Your task to perform on an android device: Look up the best rated pressure washer on Home Depot. Image 0: 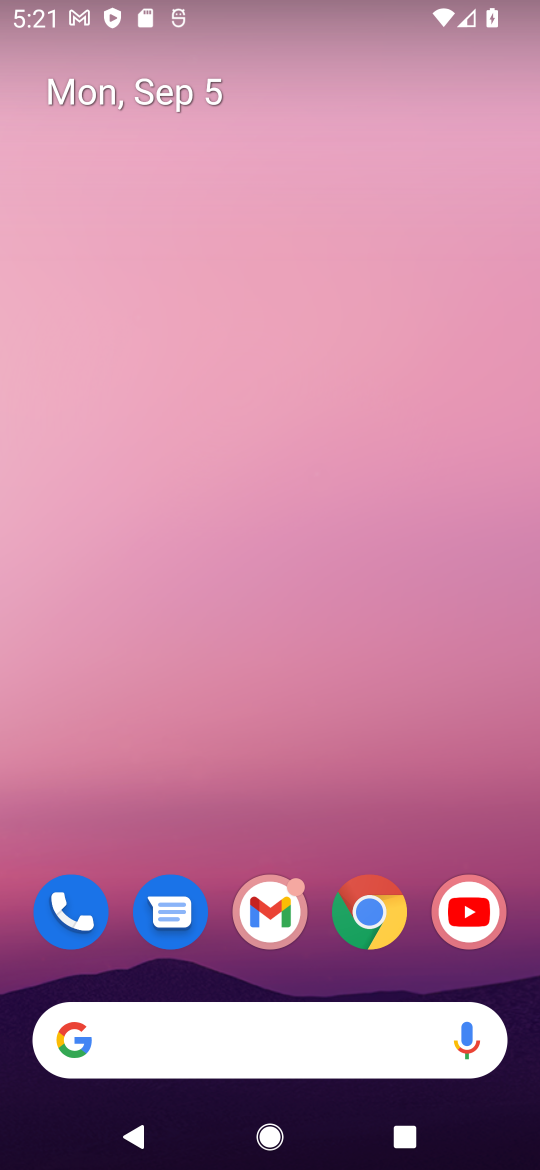
Step 0: click (384, 907)
Your task to perform on an android device: Look up the best rated pressure washer on Home Depot. Image 1: 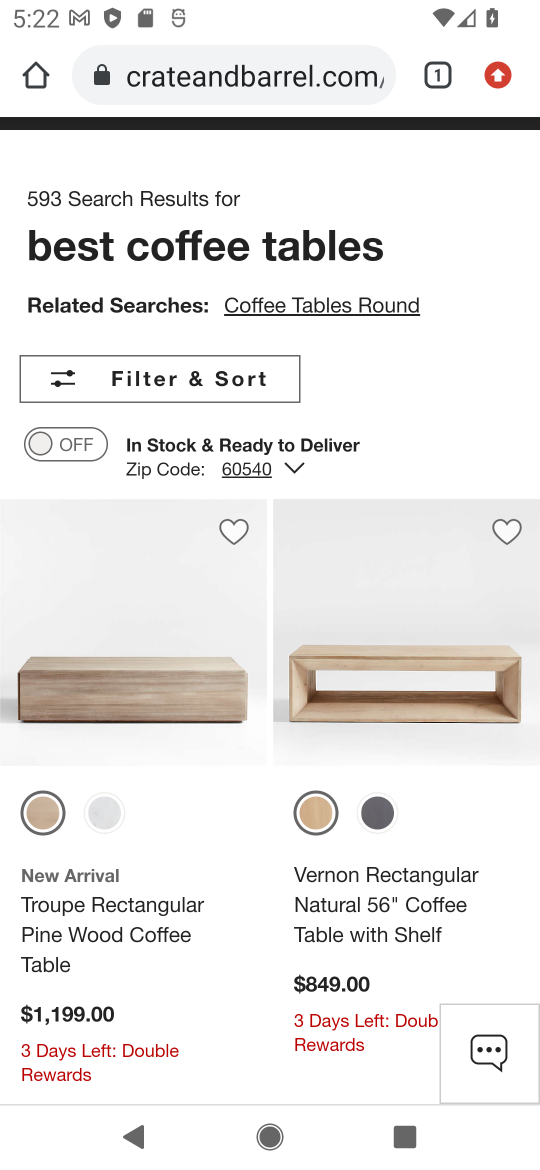
Step 1: click (279, 894)
Your task to perform on an android device: Look up the best rated pressure washer on Home Depot. Image 2: 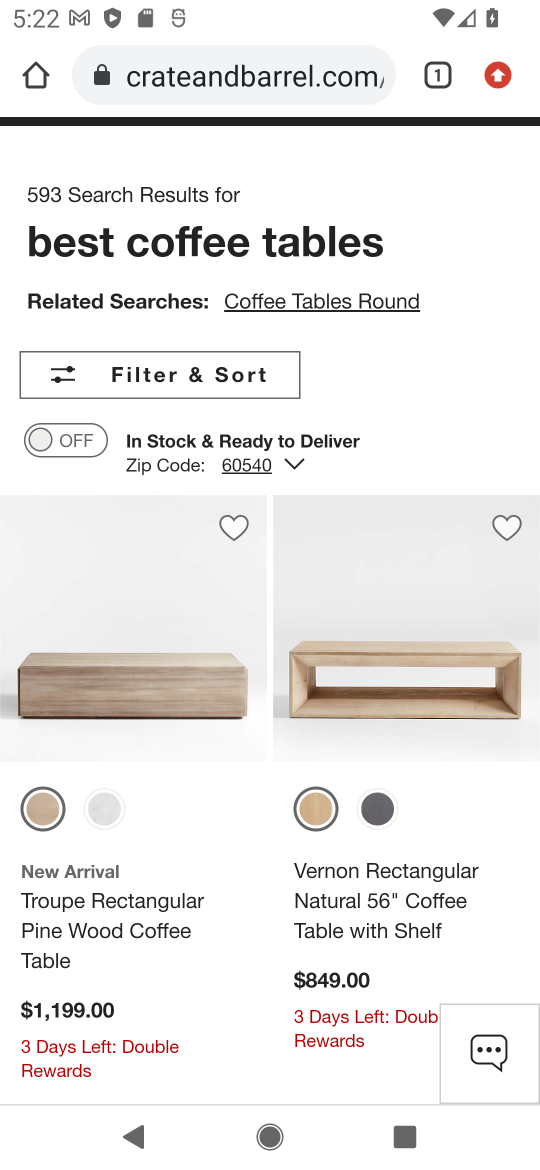
Step 2: click (303, 79)
Your task to perform on an android device: Look up the best rated pressure washer on Home Depot. Image 3: 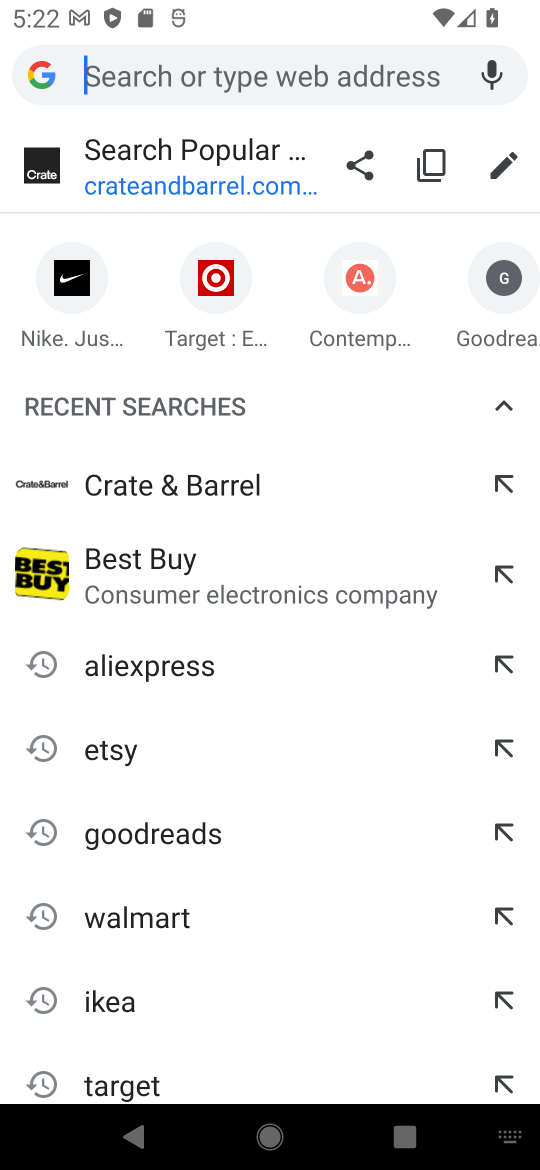
Step 3: type "home depot"
Your task to perform on an android device: Look up the best rated pressure washer on Home Depot. Image 4: 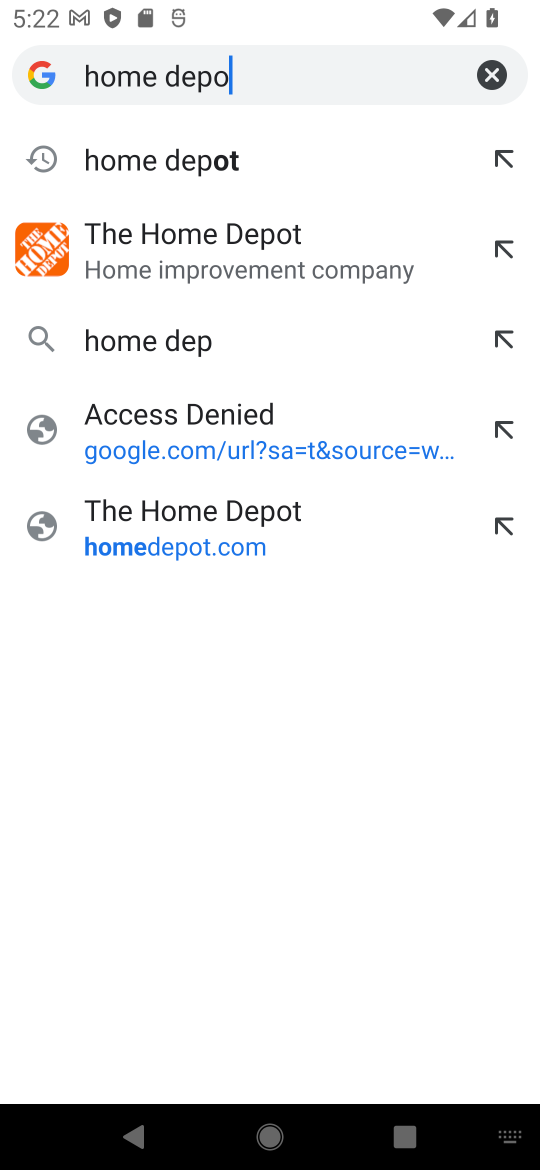
Step 4: type ""
Your task to perform on an android device: Look up the best rated pressure washer on Home Depot. Image 5: 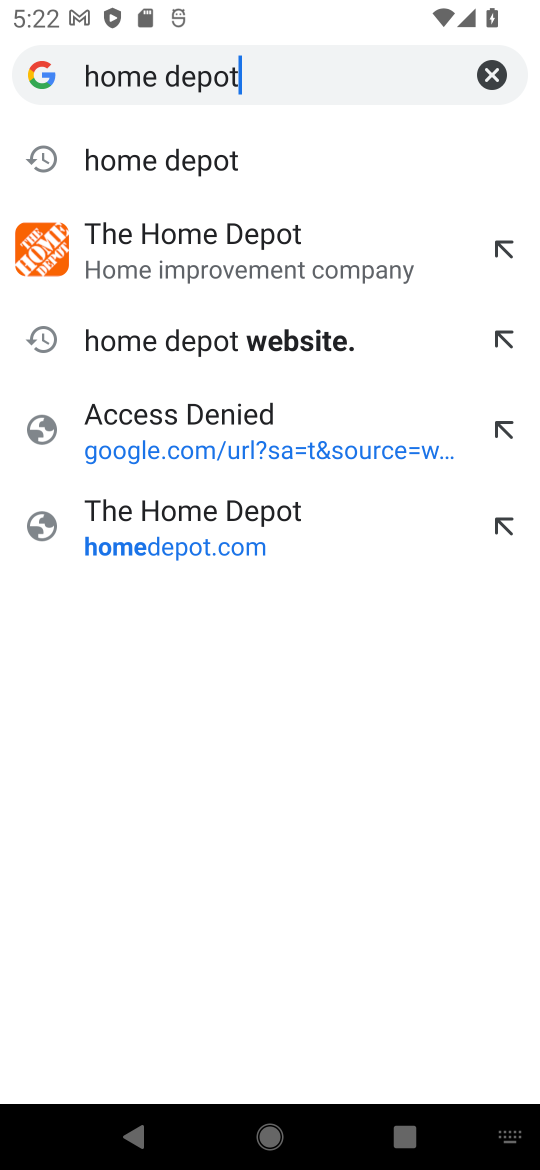
Step 5: press enter
Your task to perform on an android device: Look up the best rated pressure washer on Home Depot. Image 6: 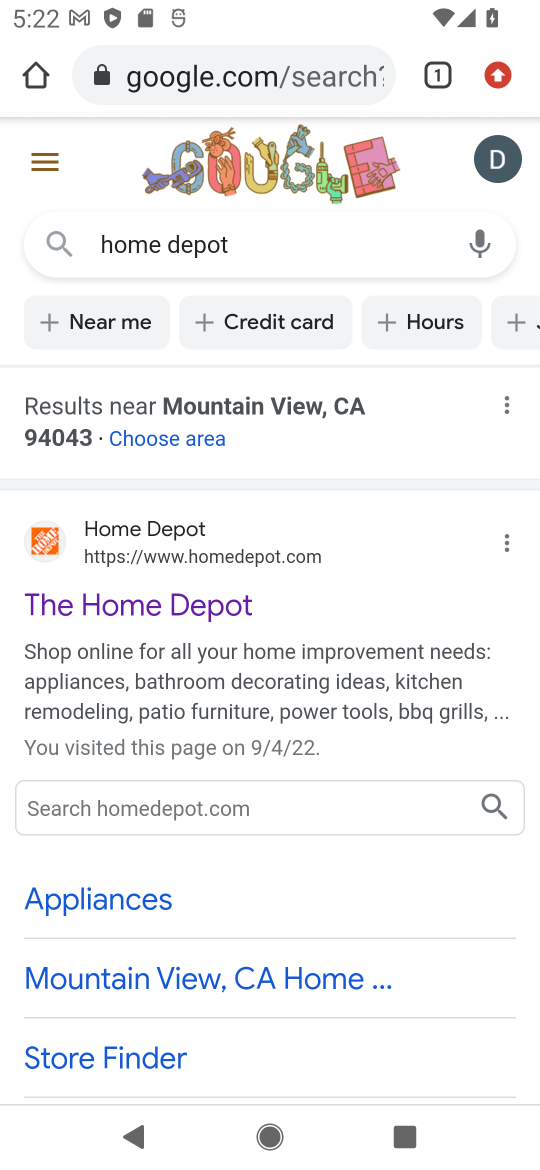
Step 6: click (193, 617)
Your task to perform on an android device: Look up the best rated pressure washer on Home Depot. Image 7: 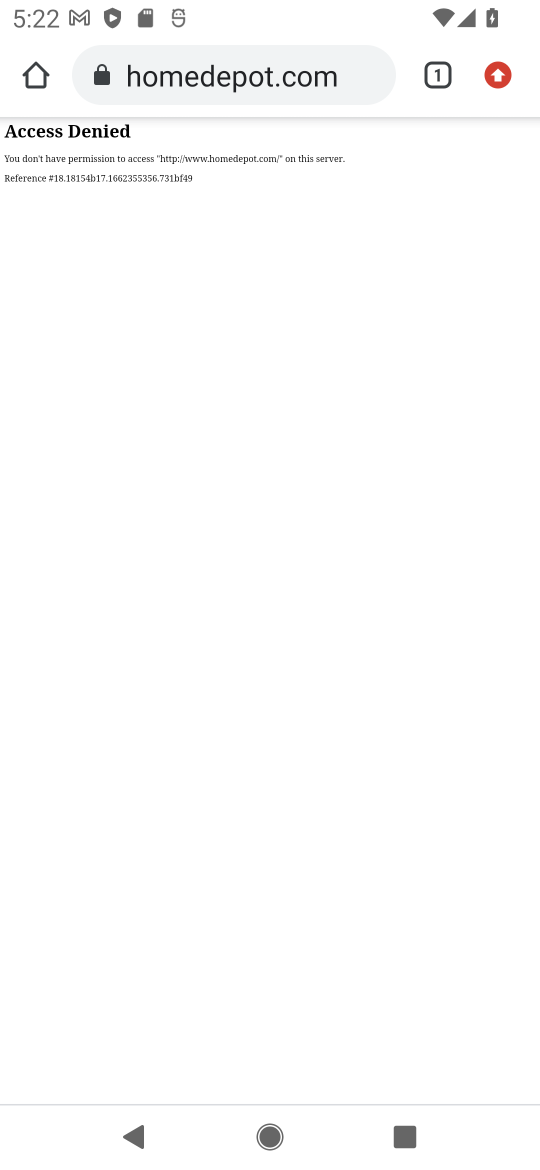
Step 7: task complete